Your task to perform on an android device: Turn on the flashlight Image 0: 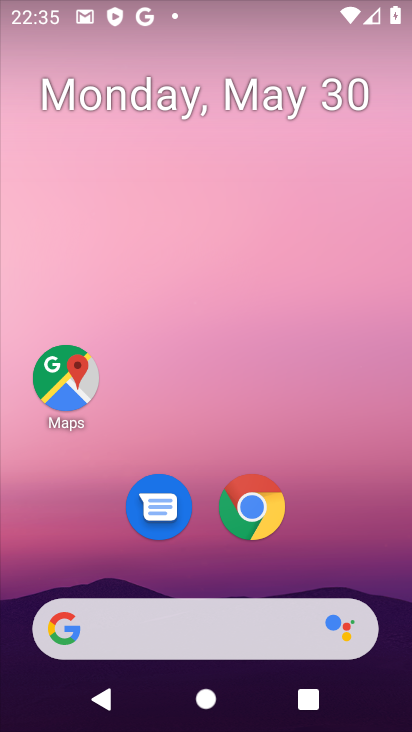
Step 0: drag from (269, 12) to (321, 321)
Your task to perform on an android device: Turn on the flashlight Image 1: 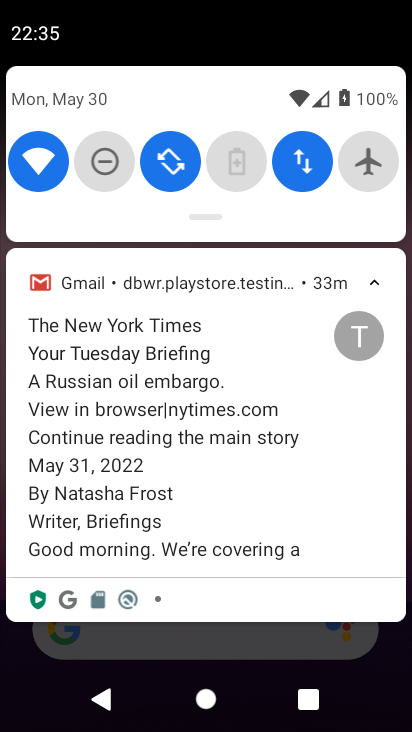
Step 1: drag from (260, 75) to (329, 410)
Your task to perform on an android device: Turn on the flashlight Image 2: 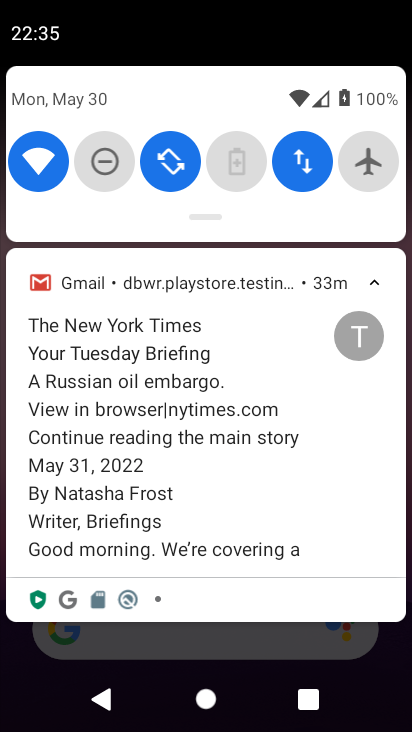
Step 2: drag from (267, 203) to (281, 430)
Your task to perform on an android device: Turn on the flashlight Image 3: 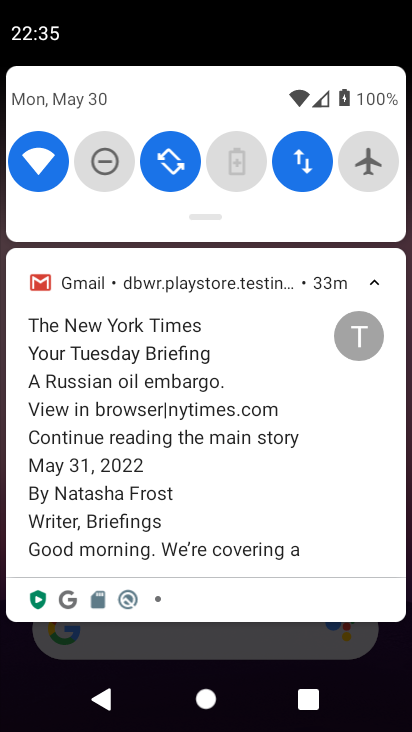
Step 3: drag from (253, 101) to (243, 406)
Your task to perform on an android device: Turn on the flashlight Image 4: 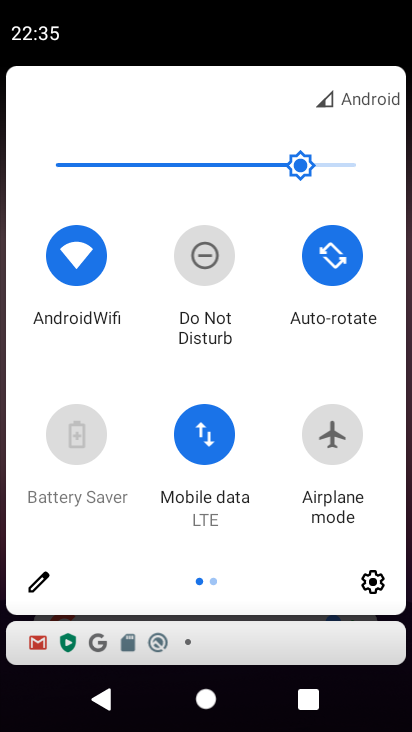
Step 4: click (37, 587)
Your task to perform on an android device: Turn on the flashlight Image 5: 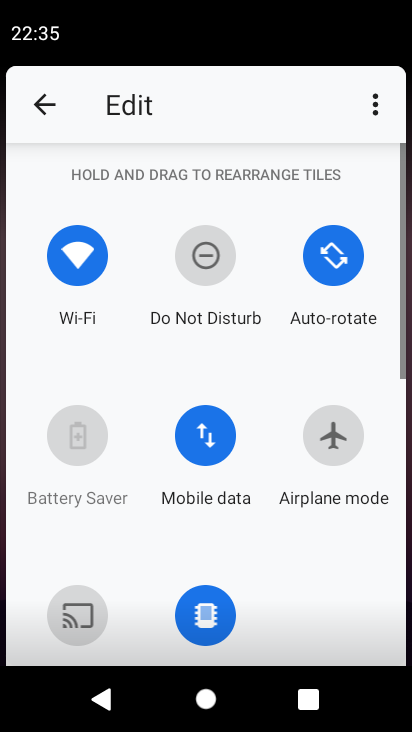
Step 5: task complete